Your task to perform on an android device: turn on showing notifications on the lock screen Image 0: 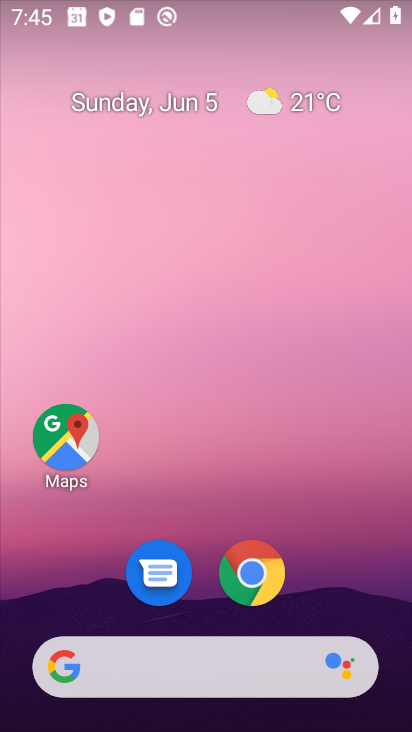
Step 0: drag from (309, 513) to (274, 155)
Your task to perform on an android device: turn on showing notifications on the lock screen Image 1: 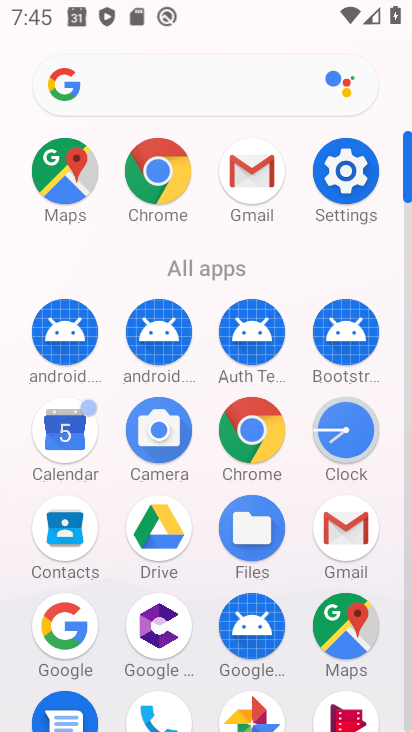
Step 1: click (349, 169)
Your task to perform on an android device: turn on showing notifications on the lock screen Image 2: 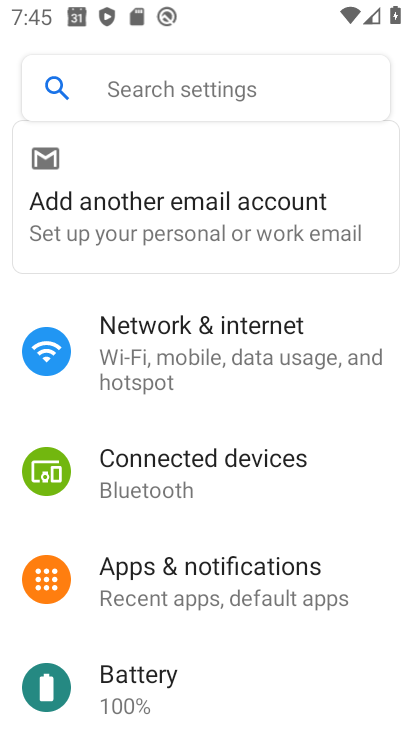
Step 2: click (210, 567)
Your task to perform on an android device: turn on showing notifications on the lock screen Image 3: 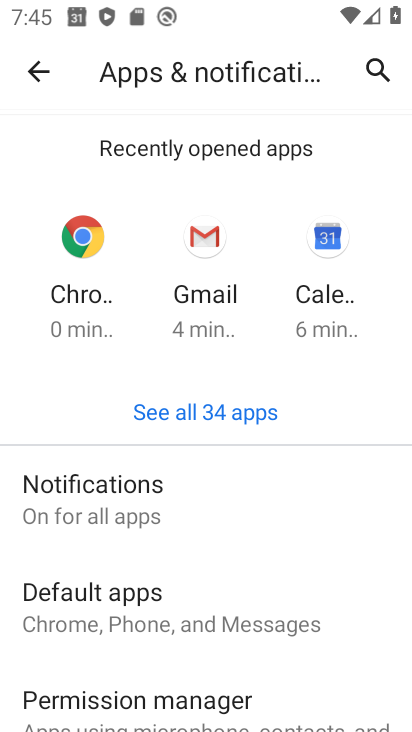
Step 3: click (105, 490)
Your task to perform on an android device: turn on showing notifications on the lock screen Image 4: 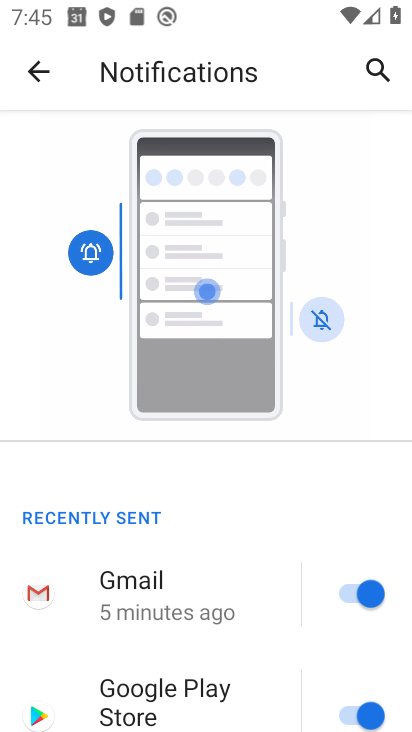
Step 4: drag from (170, 640) to (273, 166)
Your task to perform on an android device: turn on showing notifications on the lock screen Image 5: 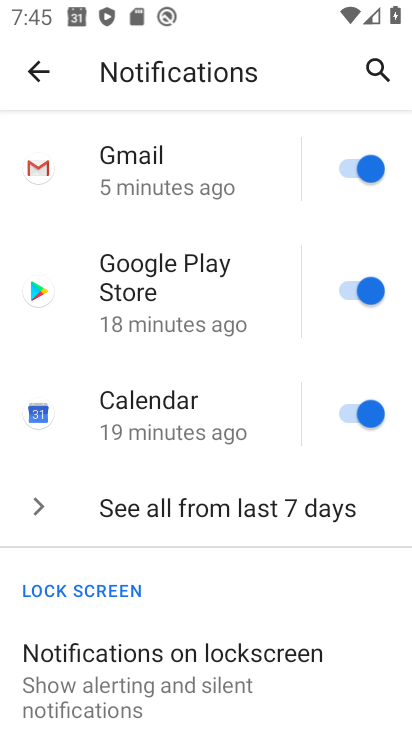
Step 5: drag from (235, 638) to (242, 319)
Your task to perform on an android device: turn on showing notifications on the lock screen Image 6: 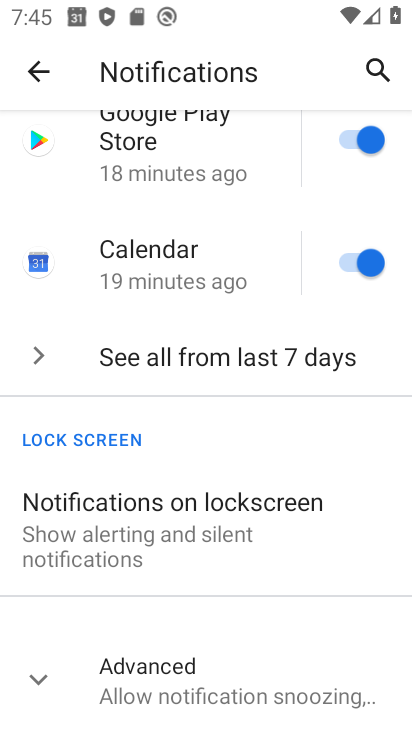
Step 6: click (176, 539)
Your task to perform on an android device: turn on showing notifications on the lock screen Image 7: 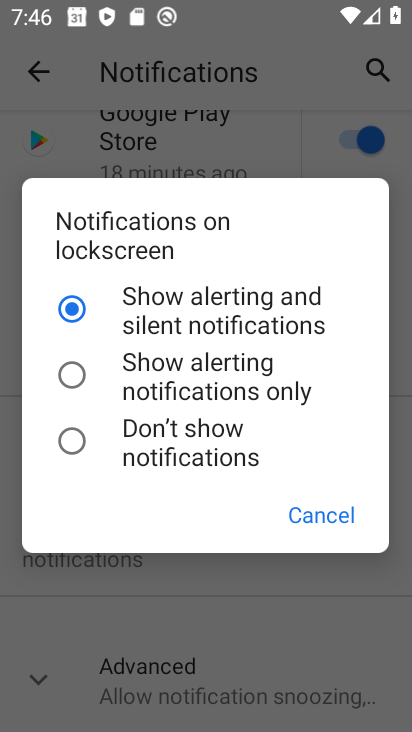
Step 7: task complete